Your task to perform on an android device: Open the calendar and show me this week's events? Image 0: 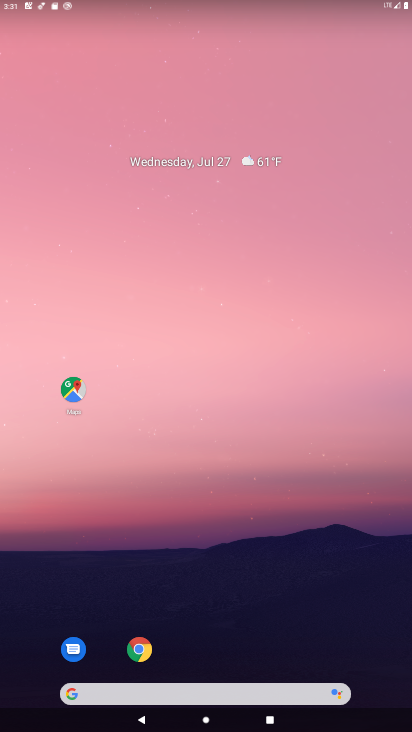
Step 0: drag from (164, 578) to (164, 21)
Your task to perform on an android device: Open the calendar and show me this week's events? Image 1: 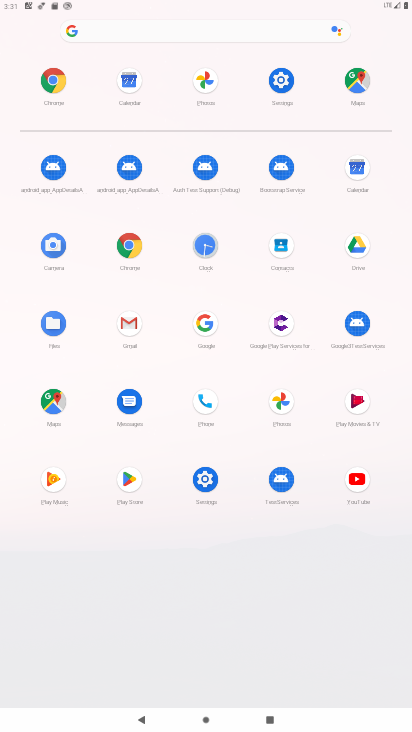
Step 1: click (360, 188)
Your task to perform on an android device: Open the calendar and show me this week's events? Image 2: 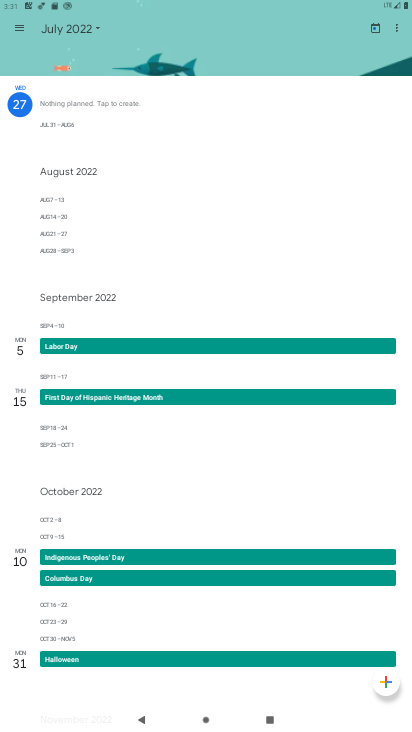
Step 2: click (67, 27)
Your task to perform on an android device: Open the calendar and show me this week's events? Image 3: 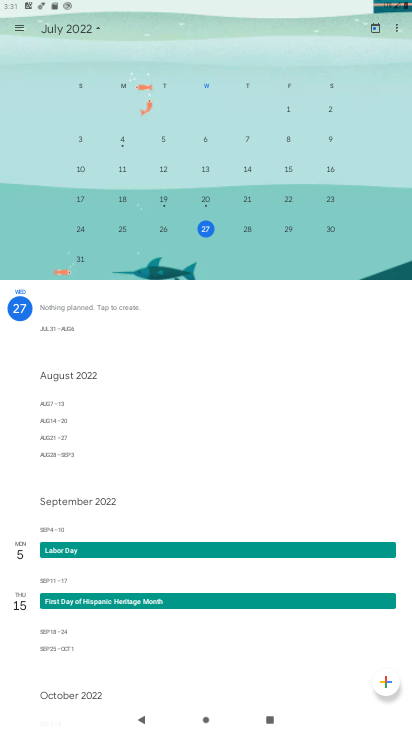
Step 3: click (18, 23)
Your task to perform on an android device: Open the calendar and show me this week's events? Image 4: 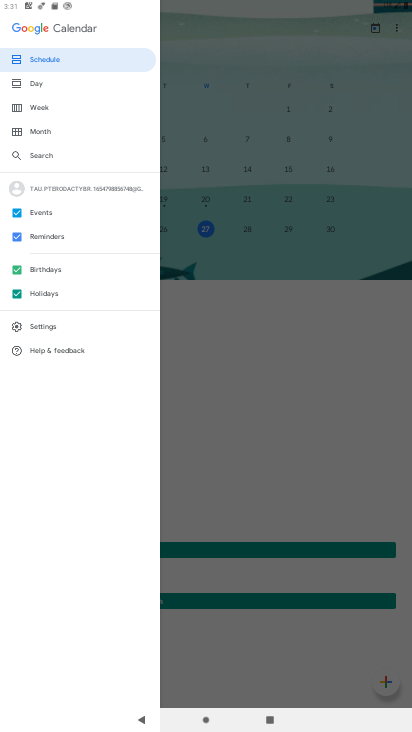
Step 4: click (30, 111)
Your task to perform on an android device: Open the calendar and show me this week's events? Image 5: 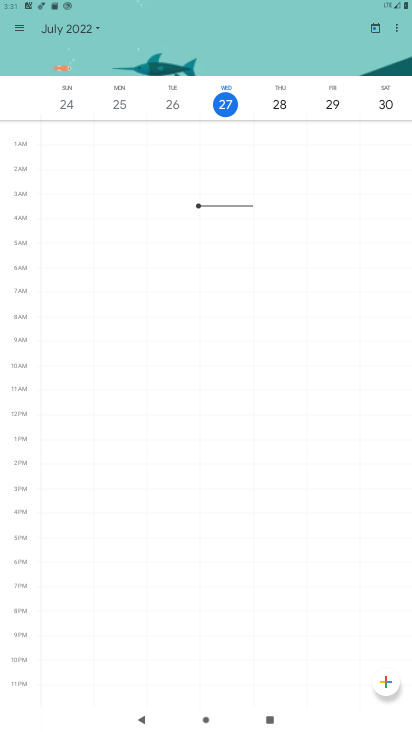
Step 5: click (74, 32)
Your task to perform on an android device: Open the calendar and show me this week's events? Image 6: 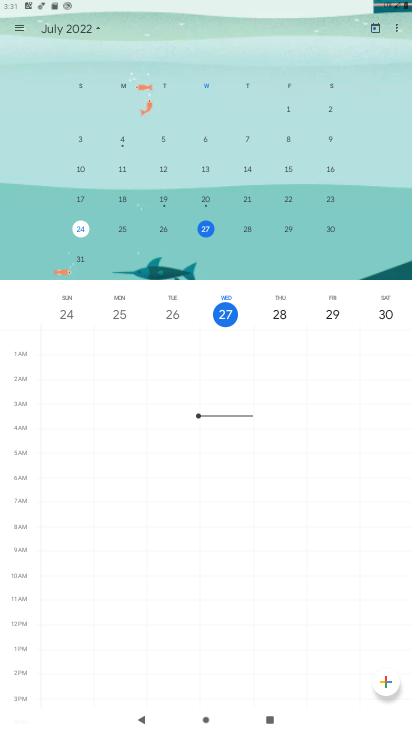
Step 6: drag from (132, 135) to (54, 182)
Your task to perform on an android device: Open the calendar and show me this week's events? Image 7: 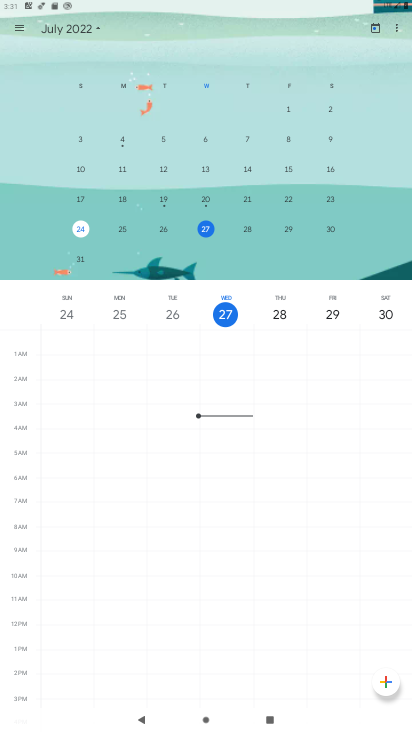
Step 7: click (86, 230)
Your task to perform on an android device: Open the calendar and show me this week's events? Image 8: 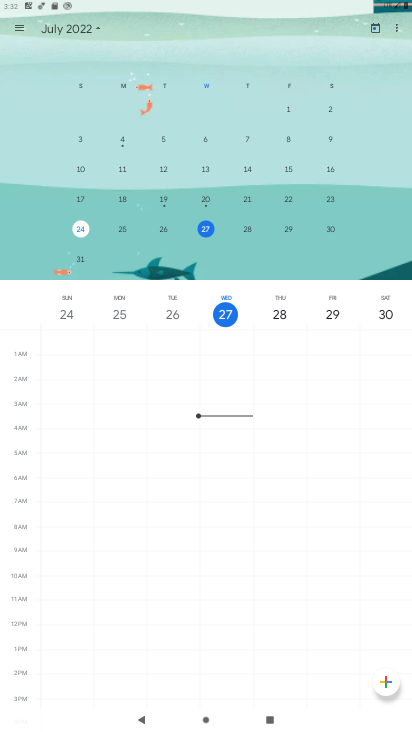
Step 8: task complete